Your task to perform on an android device: Search for flights from Barcelona to Boston Image 0: 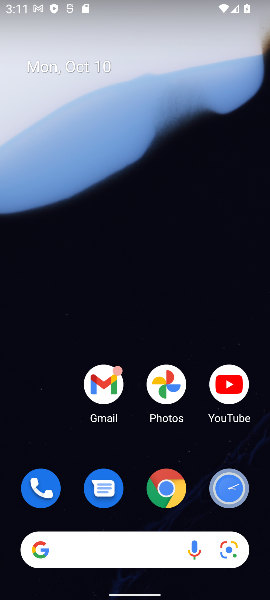
Step 0: click (125, 540)
Your task to perform on an android device: Search for flights from Barcelona to Boston Image 1: 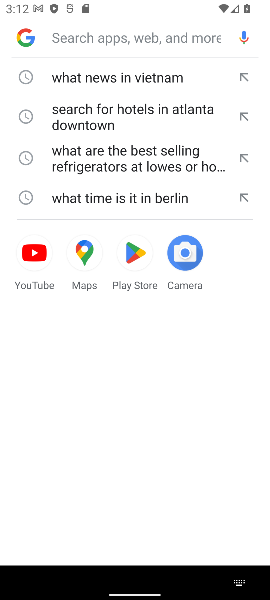
Step 1: click (104, 36)
Your task to perform on an android device: Search for flights from Barcelona to Boston Image 2: 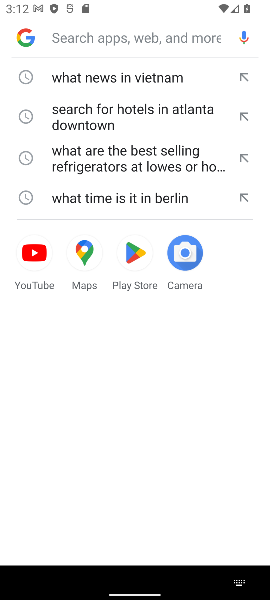
Step 2: type "Search for flights from Barcelona to Boston"
Your task to perform on an android device: Search for flights from Barcelona to Boston Image 3: 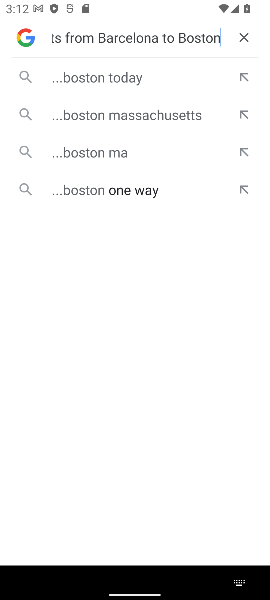
Step 3: click (73, 79)
Your task to perform on an android device: Search for flights from Barcelona to Boston Image 4: 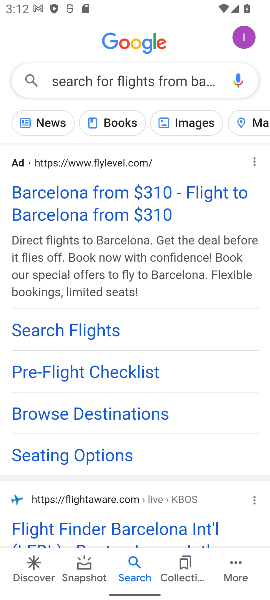
Step 4: drag from (117, 482) to (170, 100)
Your task to perform on an android device: Search for flights from Barcelona to Boston Image 5: 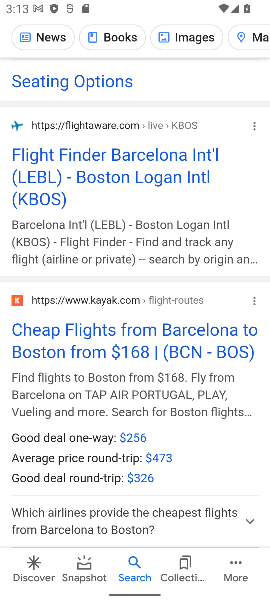
Step 5: click (104, 335)
Your task to perform on an android device: Search for flights from Barcelona to Boston Image 6: 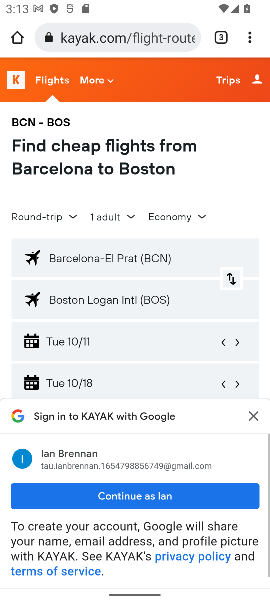
Step 6: task complete